Your task to perform on an android device: open a new tab in the chrome app Image 0: 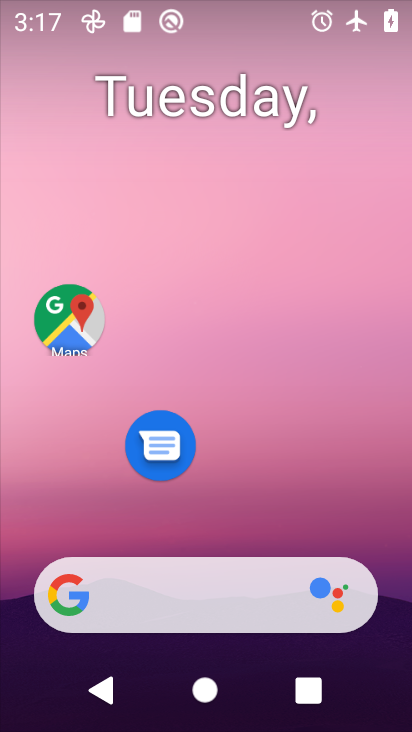
Step 0: drag from (279, 454) to (182, 22)
Your task to perform on an android device: open a new tab in the chrome app Image 1: 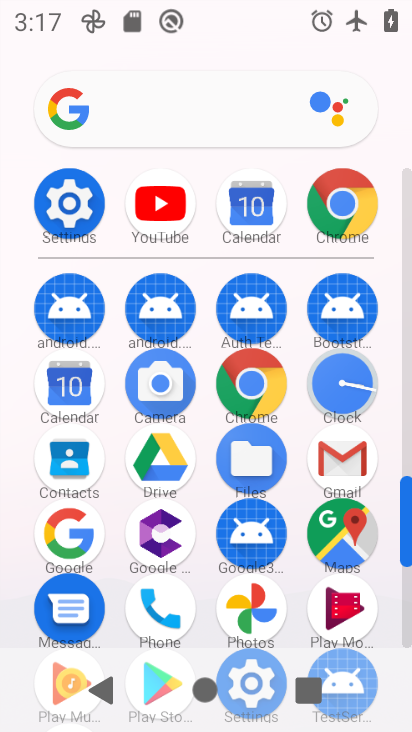
Step 1: click (338, 215)
Your task to perform on an android device: open a new tab in the chrome app Image 2: 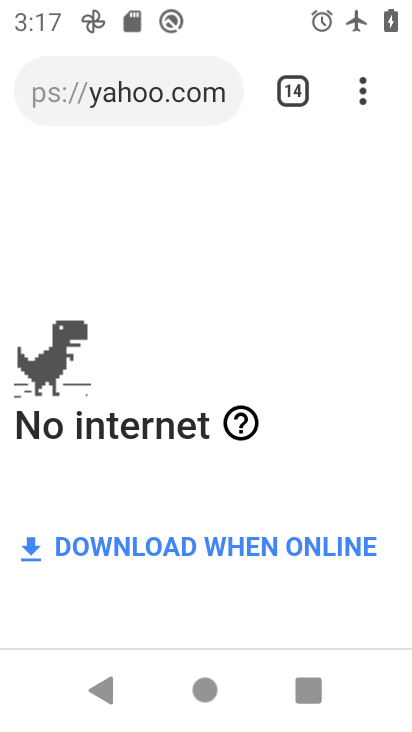
Step 2: click (358, 89)
Your task to perform on an android device: open a new tab in the chrome app Image 3: 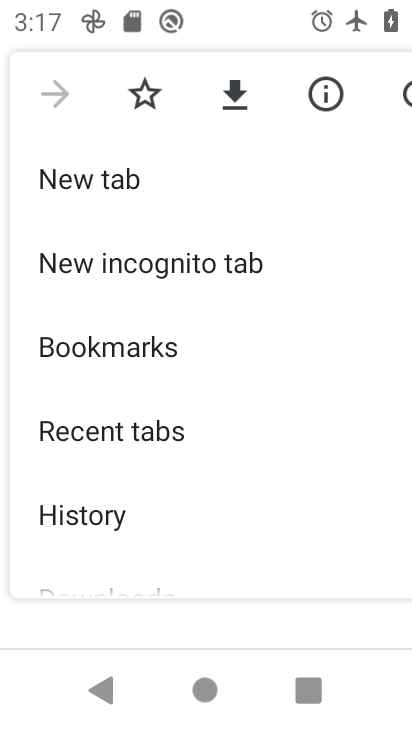
Step 3: drag from (231, 467) to (171, 198)
Your task to perform on an android device: open a new tab in the chrome app Image 4: 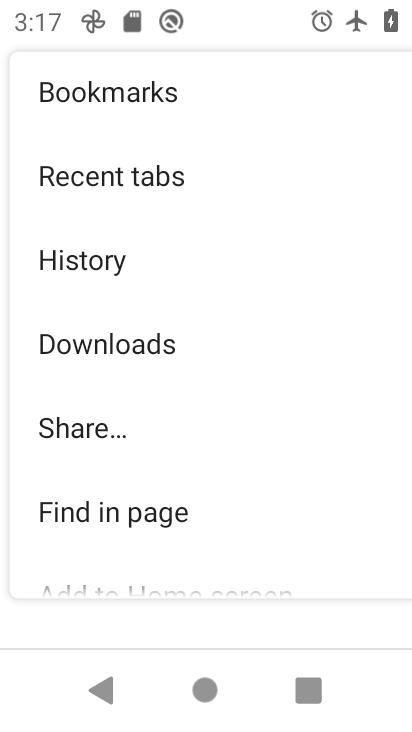
Step 4: drag from (208, 415) to (160, 165)
Your task to perform on an android device: open a new tab in the chrome app Image 5: 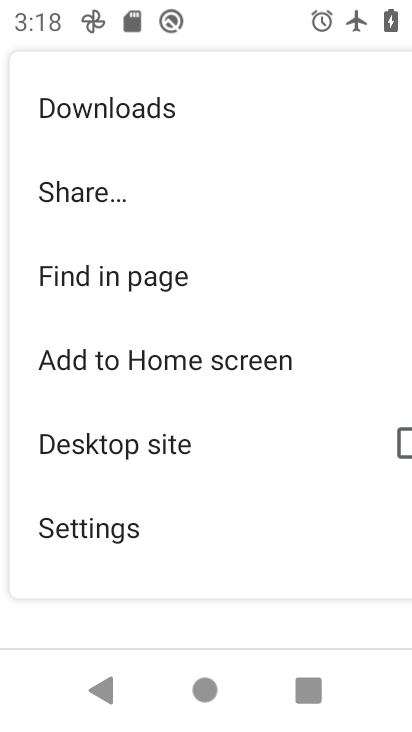
Step 5: drag from (198, 270) to (224, 664)
Your task to perform on an android device: open a new tab in the chrome app Image 6: 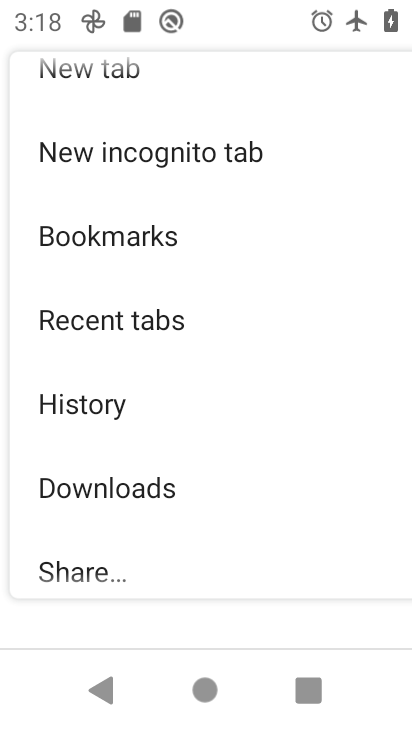
Step 6: drag from (166, 197) to (286, 723)
Your task to perform on an android device: open a new tab in the chrome app Image 7: 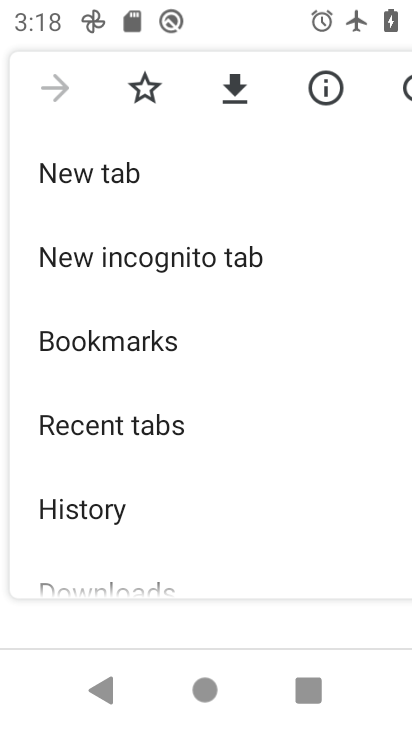
Step 7: click (104, 183)
Your task to perform on an android device: open a new tab in the chrome app Image 8: 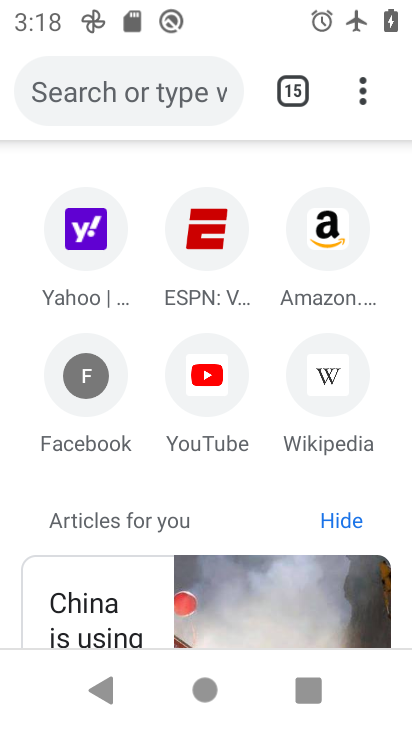
Step 8: task complete